Your task to perform on an android device: Open battery settings Image 0: 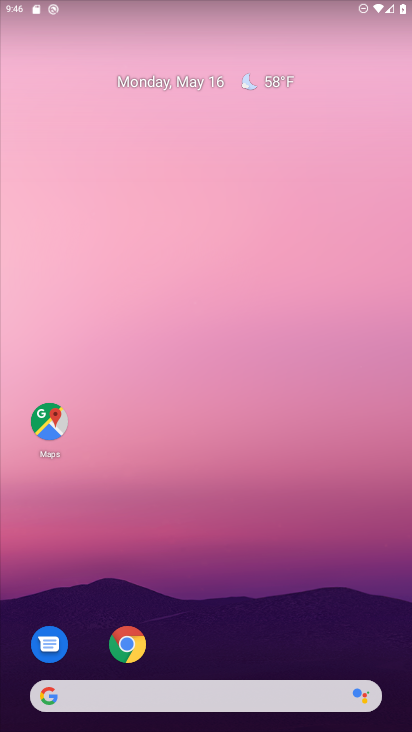
Step 0: drag from (276, 692) to (335, 376)
Your task to perform on an android device: Open battery settings Image 1: 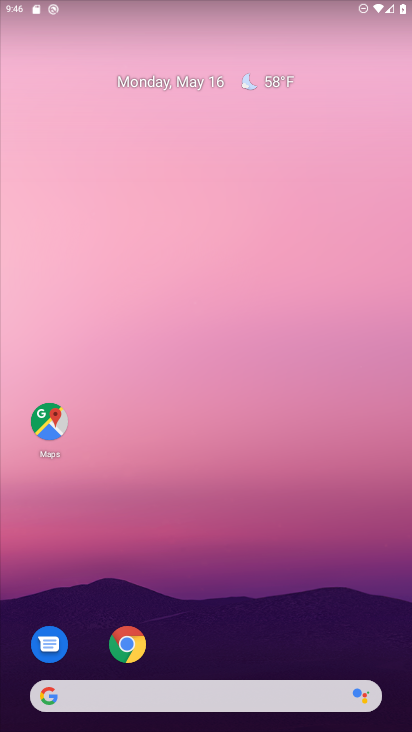
Step 1: drag from (207, 693) to (208, 435)
Your task to perform on an android device: Open battery settings Image 2: 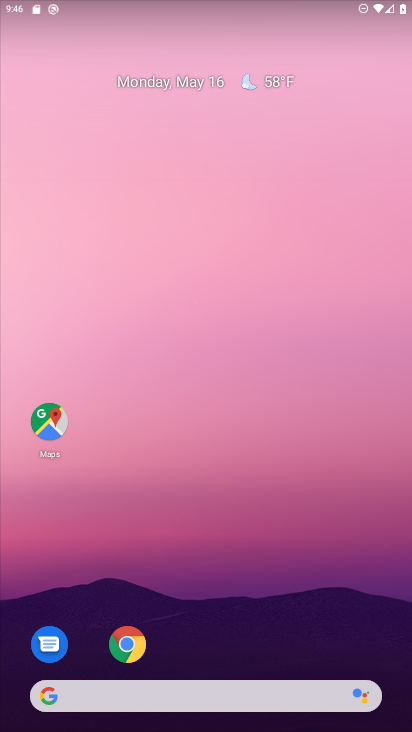
Step 2: drag from (207, 679) to (235, 147)
Your task to perform on an android device: Open battery settings Image 3: 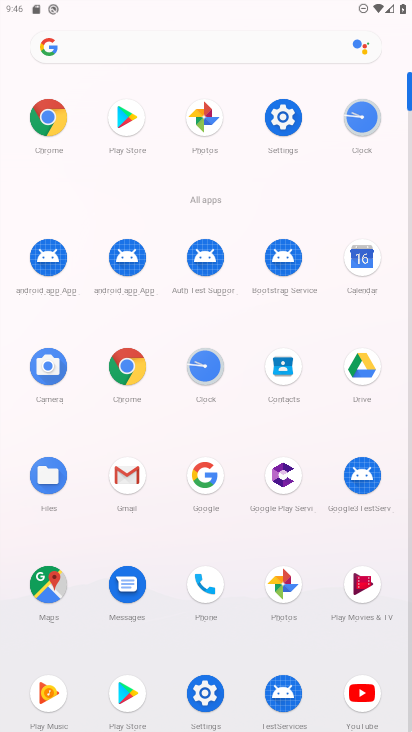
Step 3: click (281, 118)
Your task to perform on an android device: Open battery settings Image 4: 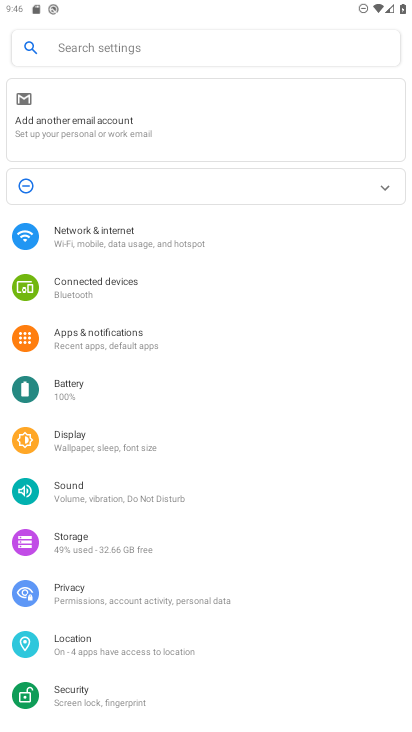
Step 4: drag from (80, 559) to (116, 225)
Your task to perform on an android device: Open battery settings Image 5: 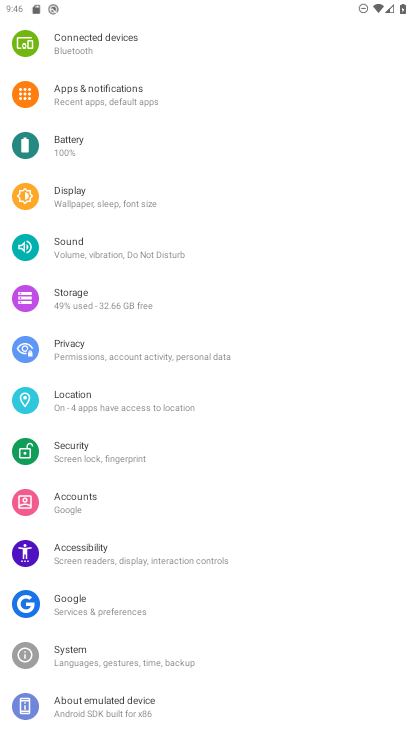
Step 5: click (127, 150)
Your task to perform on an android device: Open battery settings Image 6: 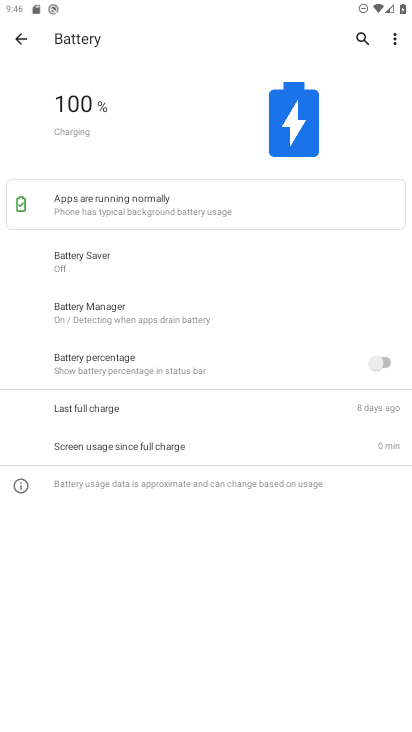
Step 6: task complete